Your task to perform on an android device: Open Google Maps and go to "Timeline" Image 0: 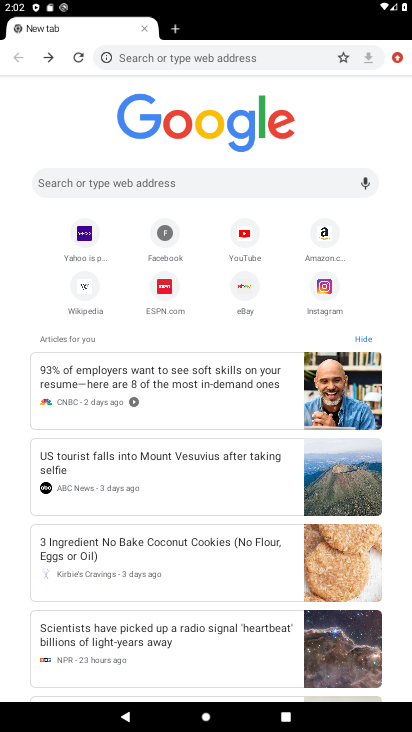
Step 0: press back button
Your task to perform on an android device: Open Google Maps and go to "Timeline" Image 1: 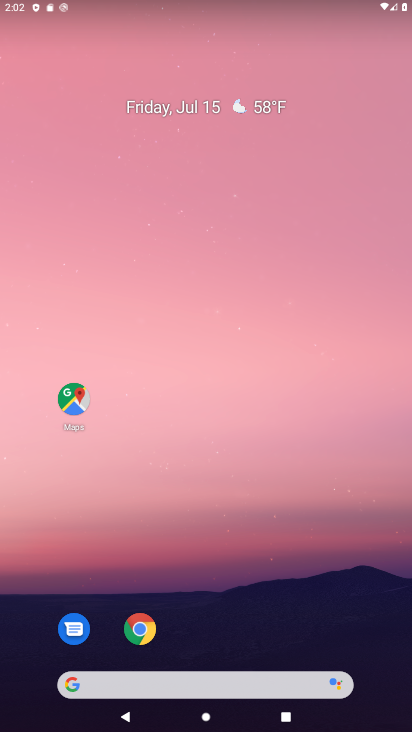
Step 1: drag from (208, 667) to (200, 236)
Your task to perform on an android device: Open Google Maps and go to "Timeline" Image 2: 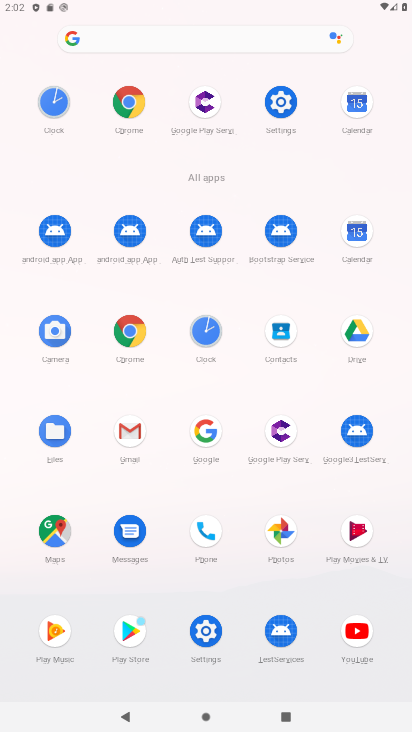
Step 2: click (360, 334)
Your task to perform on an android device: Open Google Maps and go to "Timeline" Image 3: 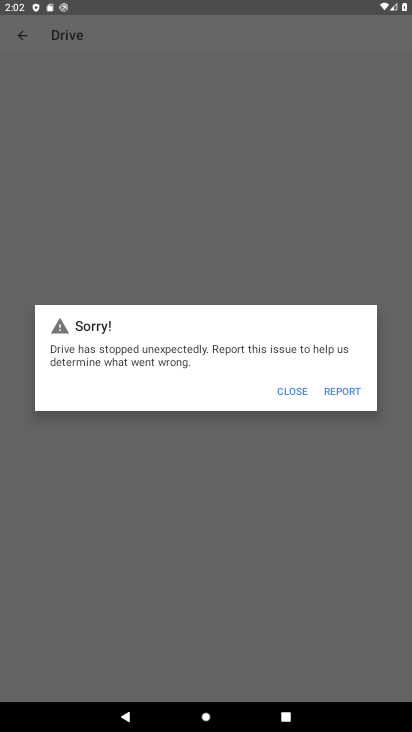
Step 3: click (297, 385)
Your task to perform on an android device: Open Google Maps and go to "Timeline" Image 4: 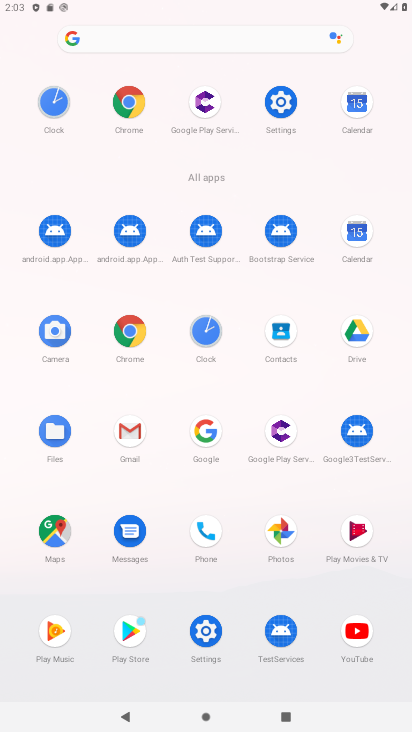
Step 4: click (38, 540)
Your task to perform on an android device: Open Google Maps and go to "Timeline" Image 5: 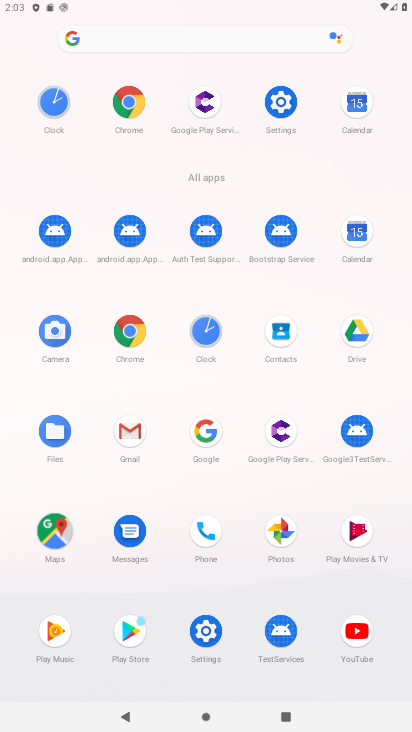
Step 5: click (40, 539)
Your task to perform on an android device: Open Google Maps and go to "Timeline" Image 6: 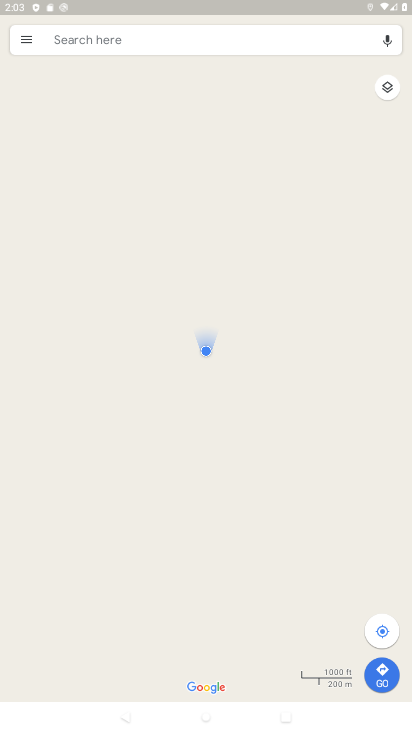
Step 6: drag from (26, 37) to (31, 85)
Your task to perform on an android device: Open Google Maps and go to "Timeline" Image 7: 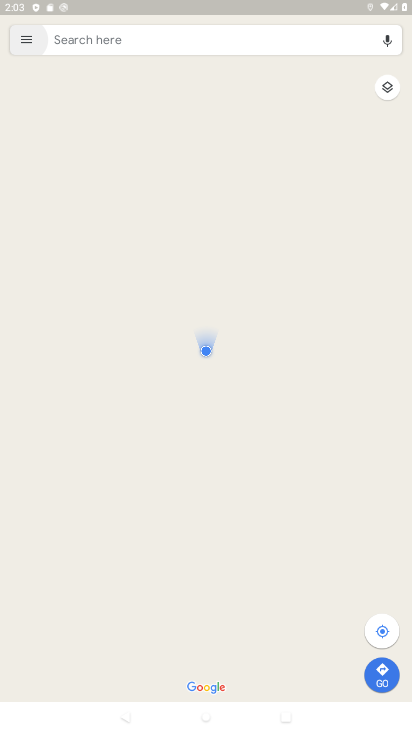
Step 7: drag from (23, 44) to (30, 99)
Your task to perform on an android device: Open Google Maps and go to "Timeline" Image 8: 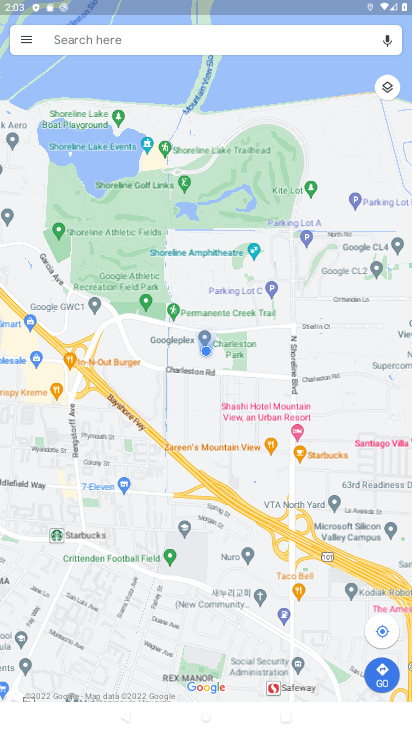
Step 8: click (33, 42)
Your task to perform on an android device: Open Google Maps and go to "Timeline" Image 9: 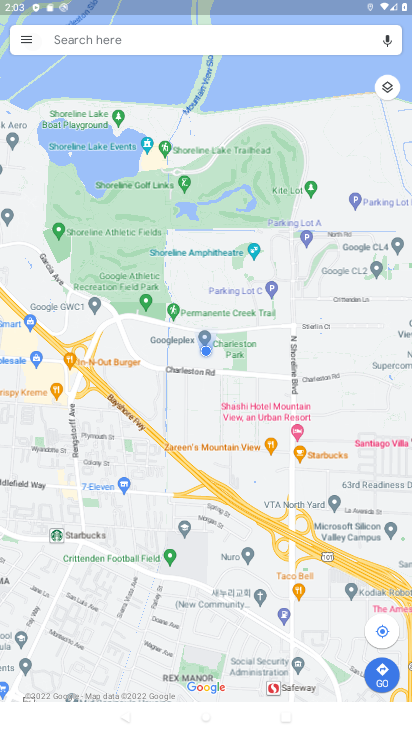
Step 9: click (33, 42)
Your task to perform on an android device: Open Google Maps and go to "Timeline" Image 10: 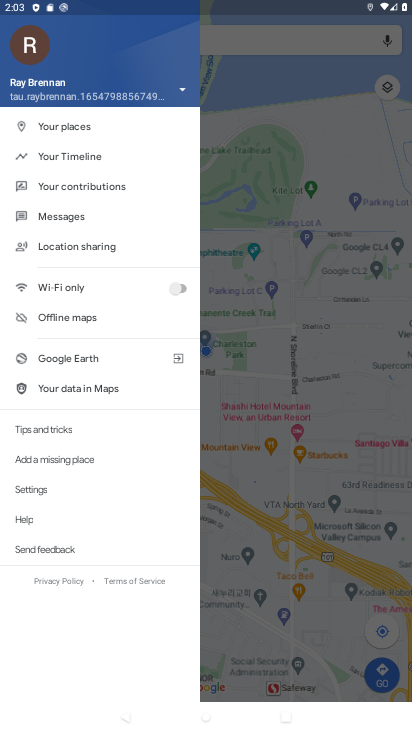
Step 10: click (68, 150)
Your task to perform on an android device: Open Google Maps and go to "Timeline" Image 11: 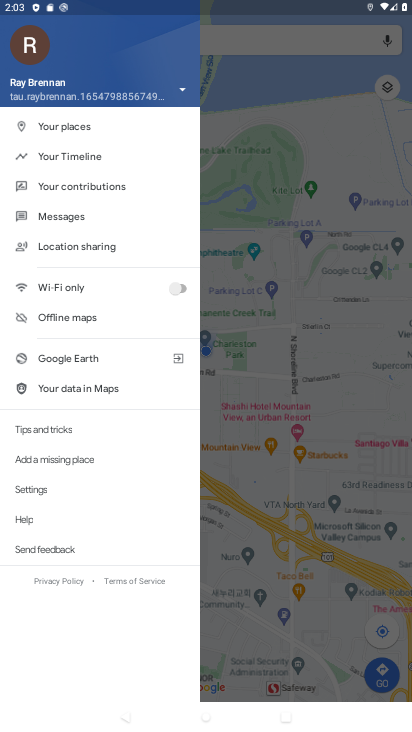
Step 11: task complete